Your task to perform on an android device: Search for "amazon basics triple a" on target, select the first entry, and add it to the cart. Image 0: 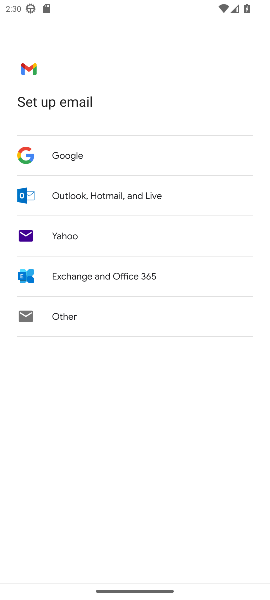
Step 0: press home button
Your task to perform on an android device: Search for "amazon basics triple a" on target, select the first entry, and add it to the cart. Image 1: 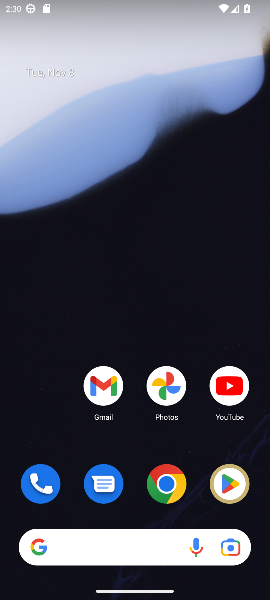
Step 1: click (172, 492)
Your task to perform on an android device: Search for "amazon basics triple a" on target, select the first entry, and add it to the cart. Image 2: 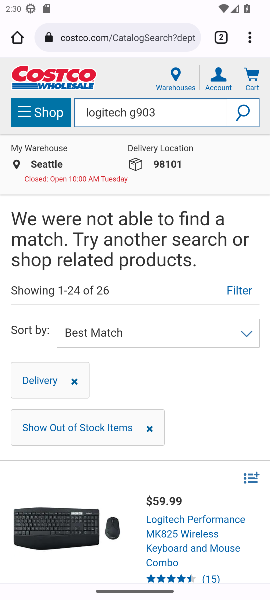
Step 2: click (140, 40)
Your task to perform on an android device: Search for "amazon basics triple a" on target, select the first entry, and add it to the cart. Image 3: 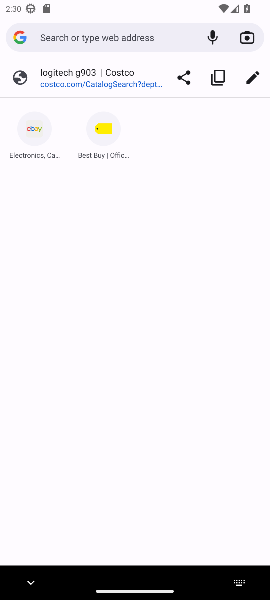
Step 3: type "target"
Your task to perform on an android device: Search for "amazon basics triple a" on target, select the first entry, and add it to the cart. Image 4: 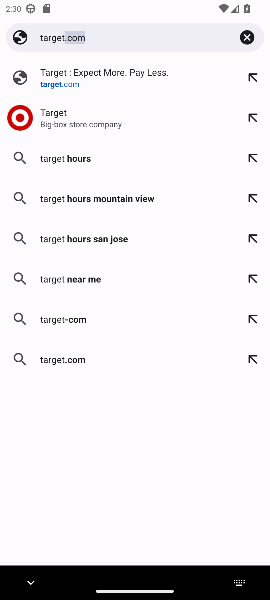
Step 4: click (38, 119)
Your task to perform on an android device: Search for "amazon basics triple a" on target, select the first entry, and add it to the cart. Image 5: 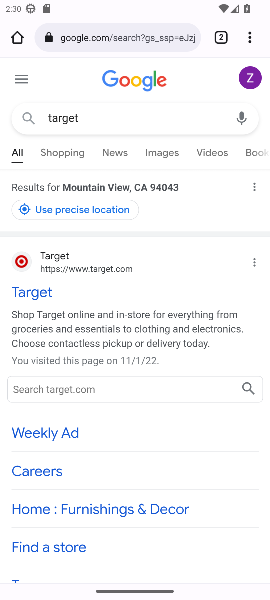
Step 5: click (41, 288)
Your task to perform on an android device: Search for "amazon basics triple a" on target, select the first entry, and add it to the cart. Image 6: 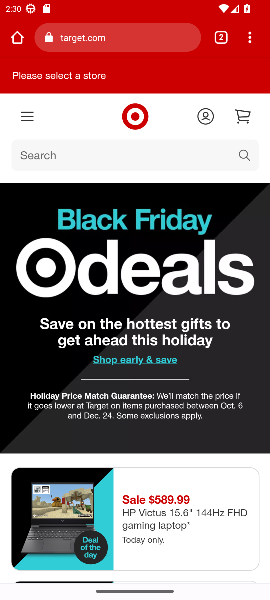
Step 6: click (182, 157)
Your task to perform on an android device: Search for "amazon basics triple a" on target, select the first entry, and add it to the cart. Image 7: 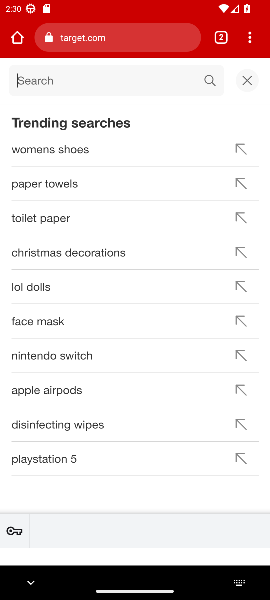
Step 7: type "amazon basics triple a"
Your task to perform on an android device: Search for "amazon basics triple a" on target, select the first entry, and add it to the cart. Image 8: 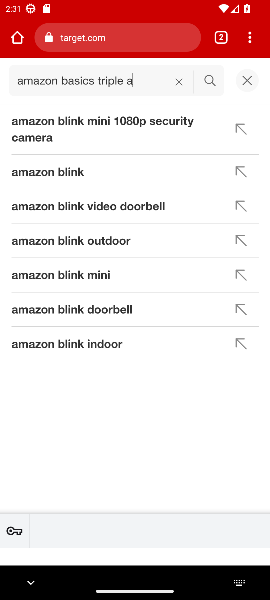
Step 8: click (213, 87)
Your task to perform on an android device: Search for "amazon basics triple a" on target, select the first entry, and add it to the cart. Image 9: 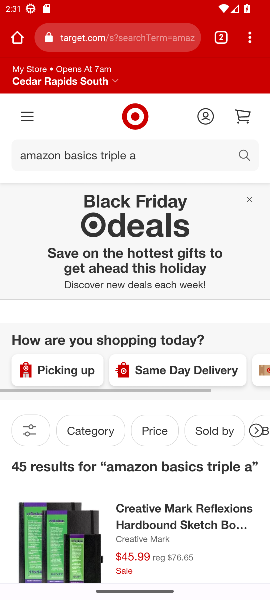
Step 9: task complete